Your task to perform on an android device: set default search engine in the chrome app Image 0: 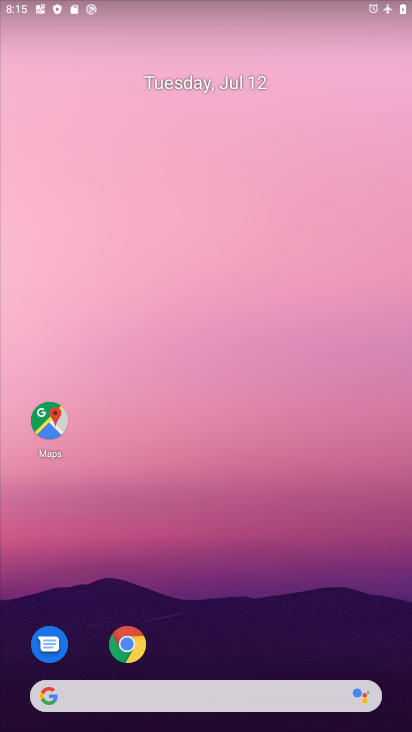
Step 0: click (133, 640)
Your task to perform on an android device: set default search engine in the chrome app Image 1: 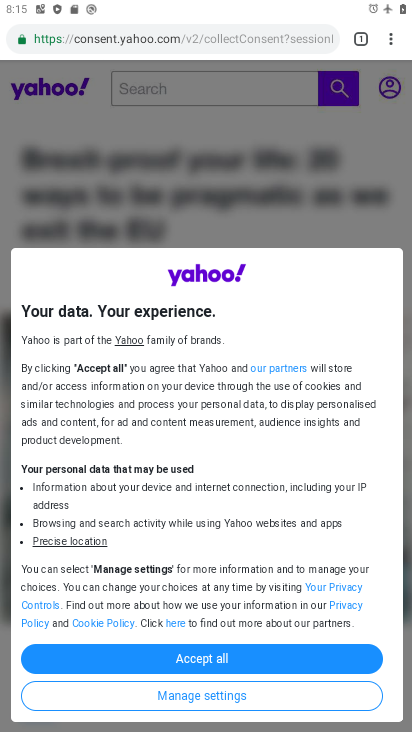
Step 1: click (388, 42)
Your task to perform on an android device: set default search engine in the chrome app Image 2: 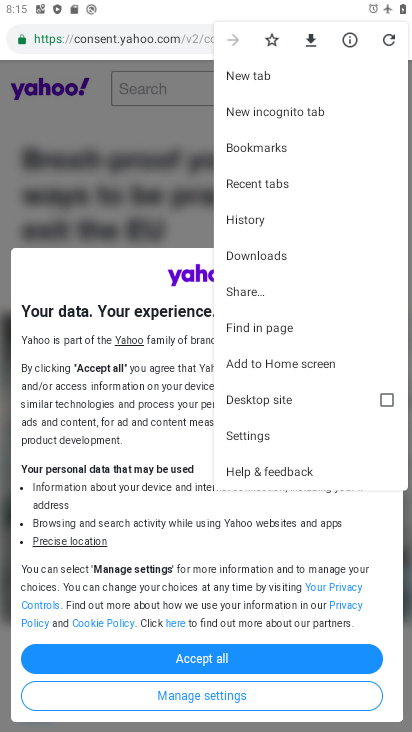
Step 2: click (251, 437)
Your task to perform on an android device: set default search engine in the chrome app Image 3: 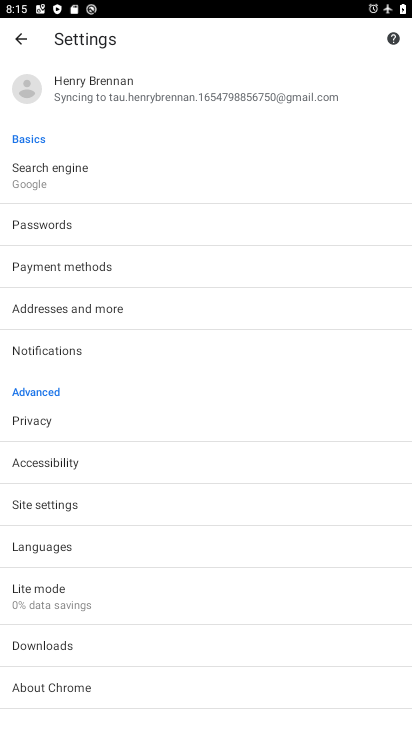
Step 3: click (77, 176)
Your task to perform on an android device: set default search engine in the chrome app Image 4: 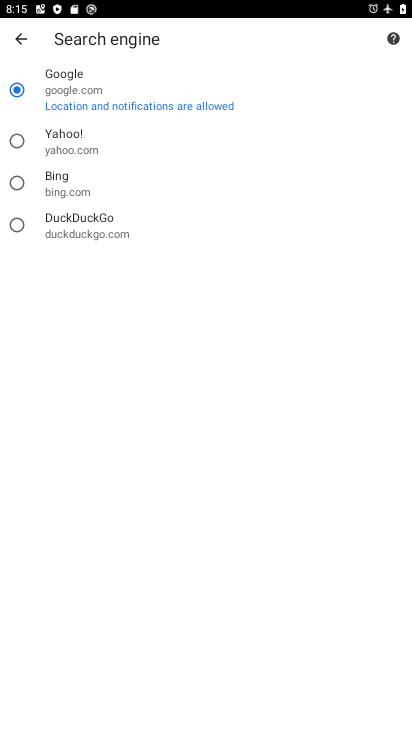
Step 4: task complete